Your task to perform on an android device: Open CNN.com Image 0: 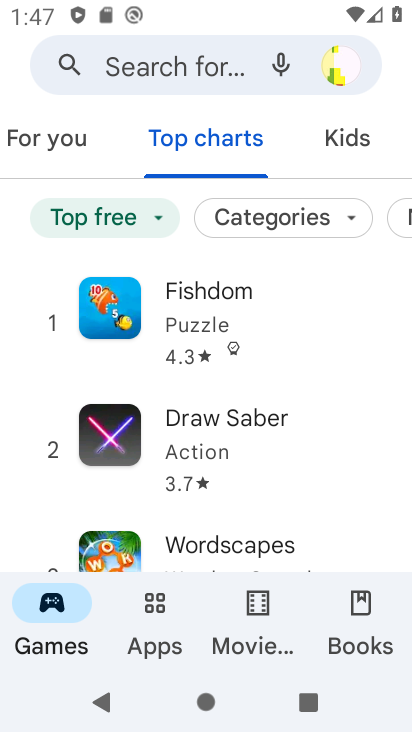
Step 0: press home button
Your task to perform on an android device: Open CNN.com Image 1: 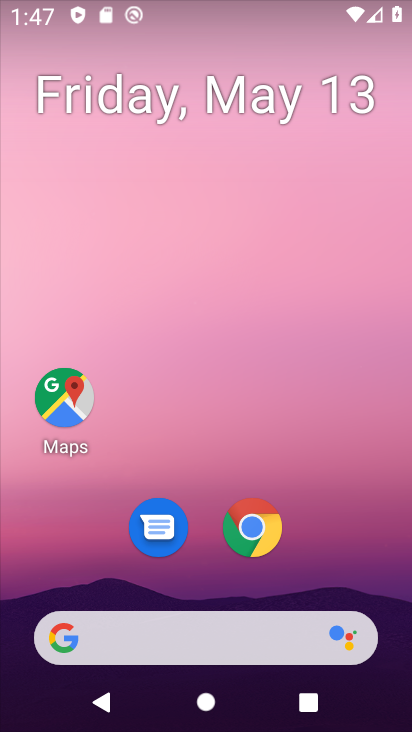
Step 1: click (205, 636)
Your task to perform on an android device: Open CNN.com Image 2: 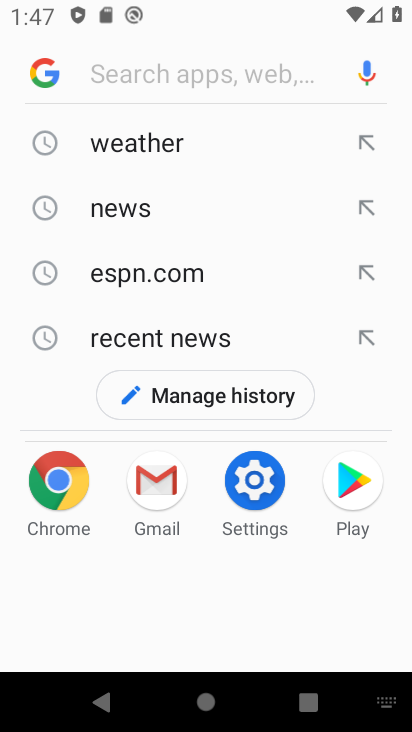
Step 2: type "cnn.com"
Your task to perform on an android device: Open CNN.com Image 3: 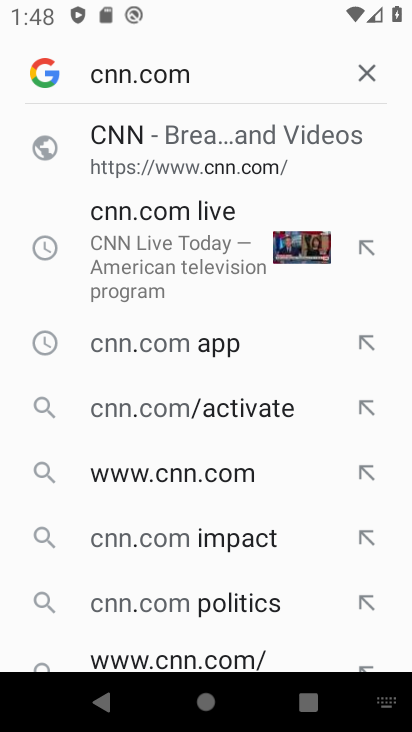
Step 3: click (192, 173)
Your task to perform on an android device: Open CNN.com Image 4: 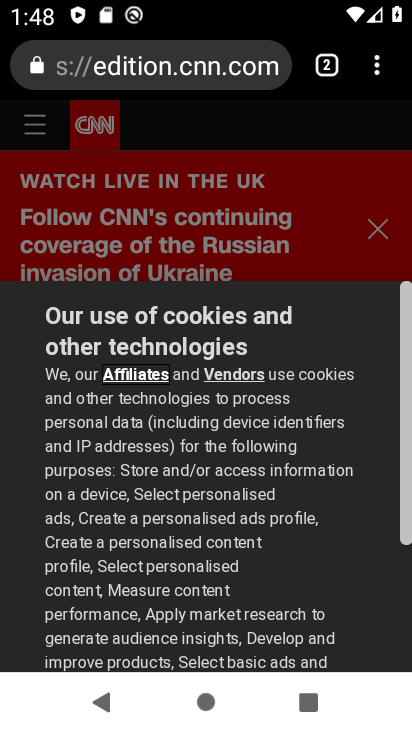
Step 4: task complete